Your task to perform on an android device: snooze an email in the gmail app Image 0: 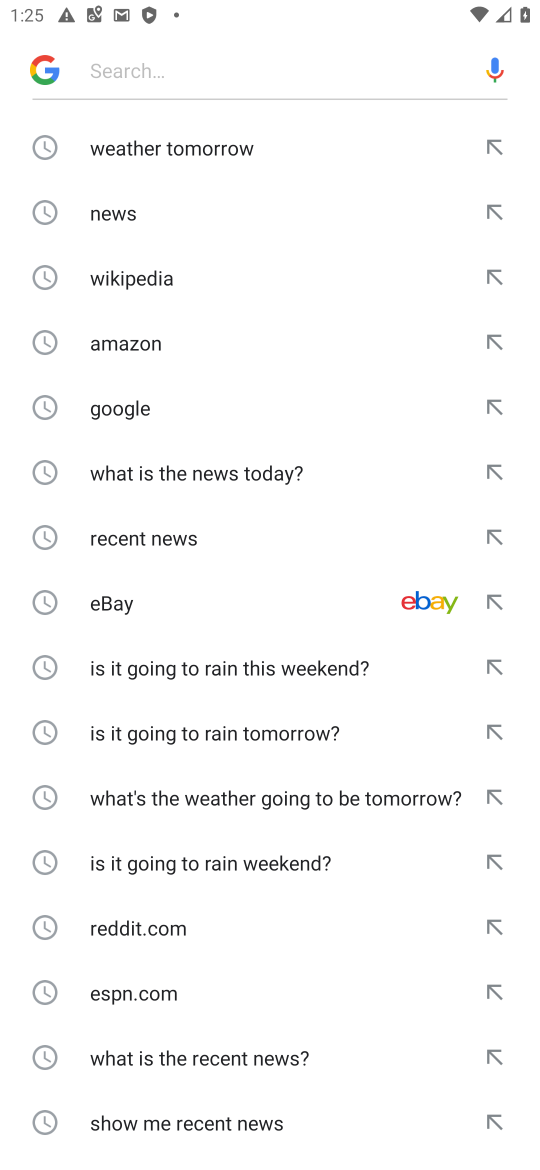
Step 0: drag from (395, 1030) to (365, 789)
Your task to perform on an android device: snooze an email in the gmail app Image 1: 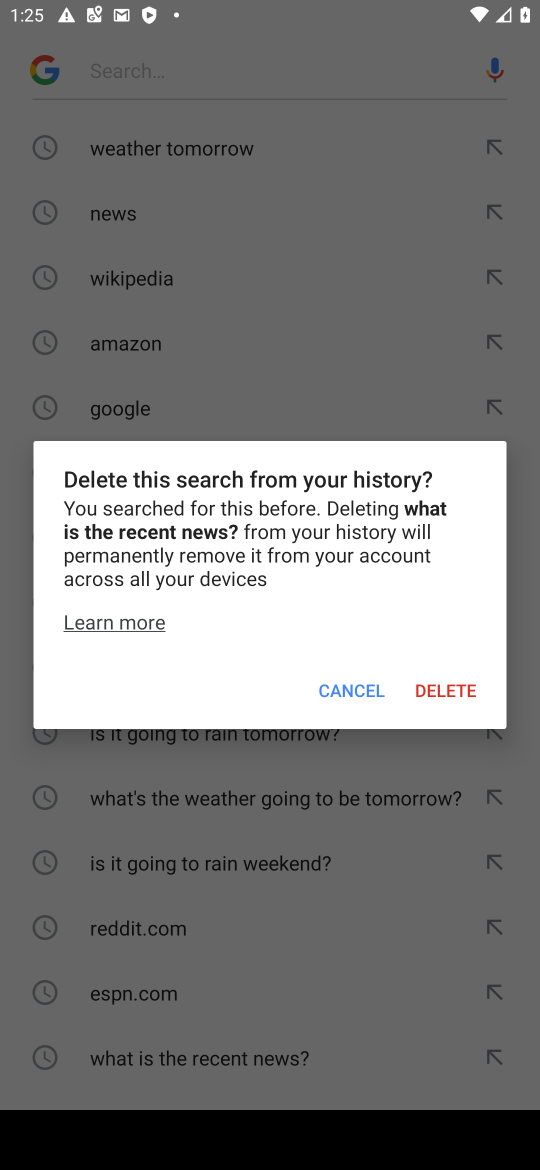
Step 1: click (365, 691)
Your task to perform on an android device: snooze an email in the gmail app Image 2: 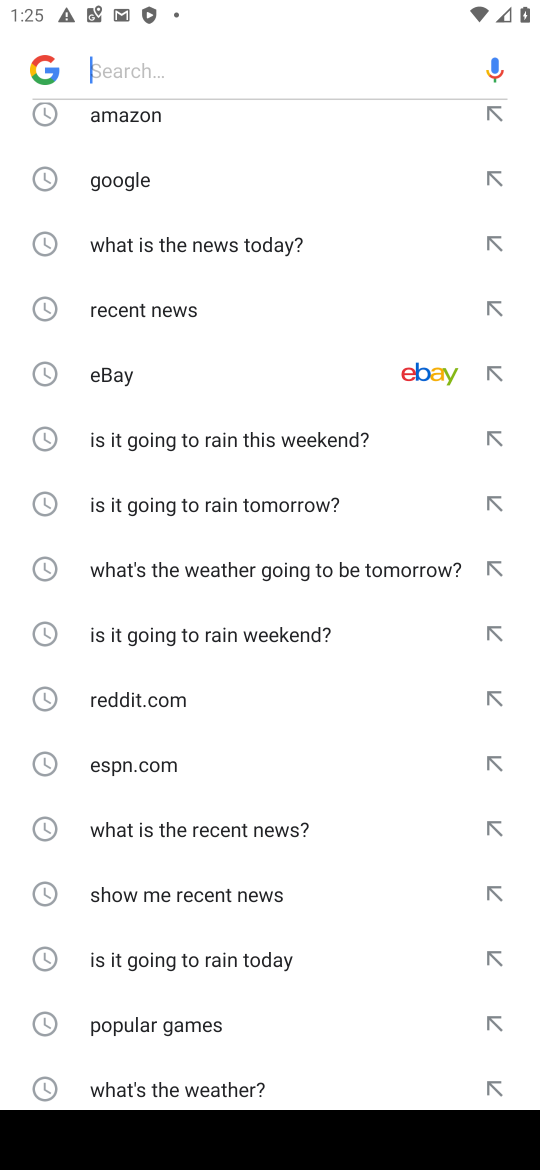
Step 2: press home button
Your task to perform on an android device: snooze an email in the gmail app Image 3: 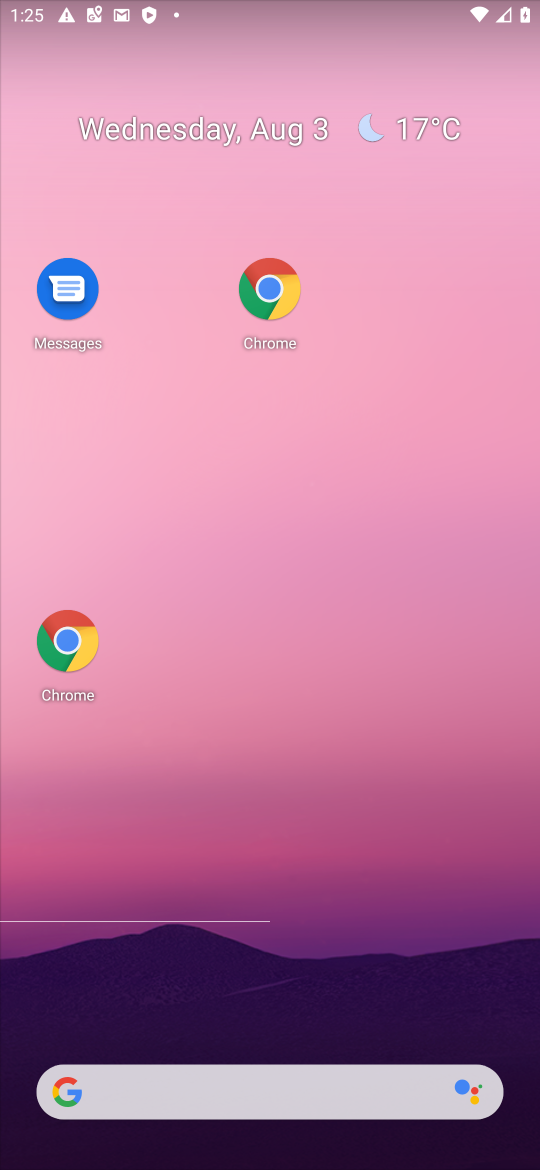
Step 3: drag from (325, 988) to (299, 437)
Your task to perform on an android device: snooze an email in the gmail app Image 4: 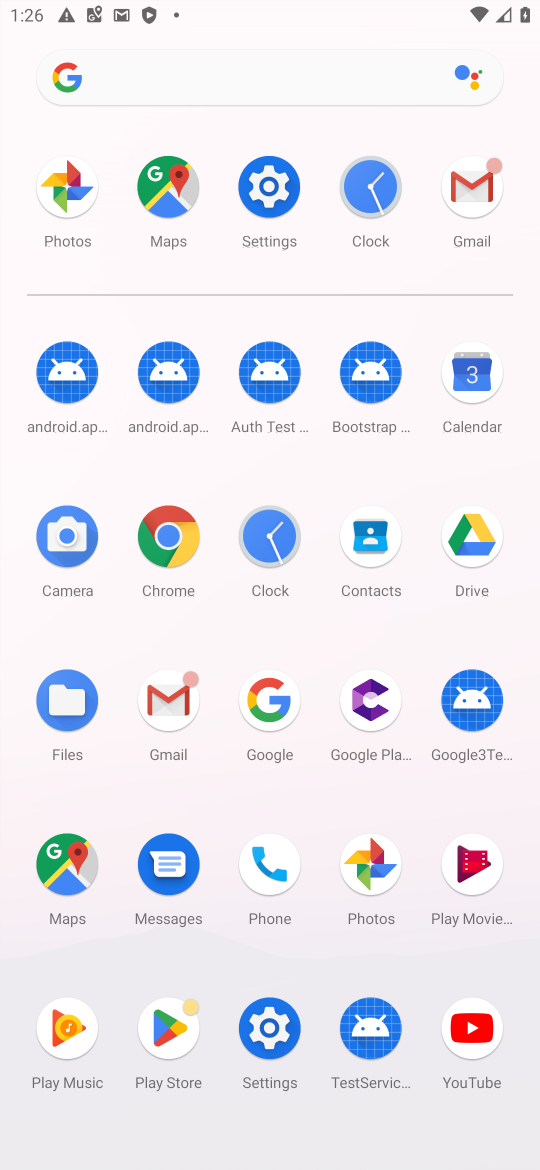
Step 4: click (474, 209)
Your task to perform on an android device: snooze an email in the gmail app Image 5: 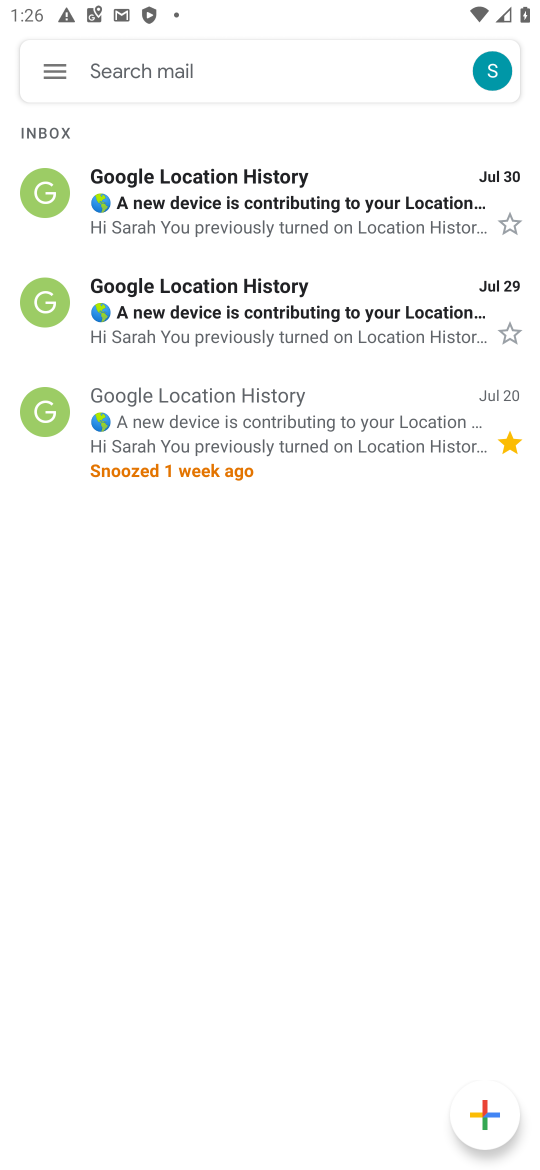
Step 5: click (264, 68)
Your task to perform on an android device: snooze an email in the gmail app Image 6: 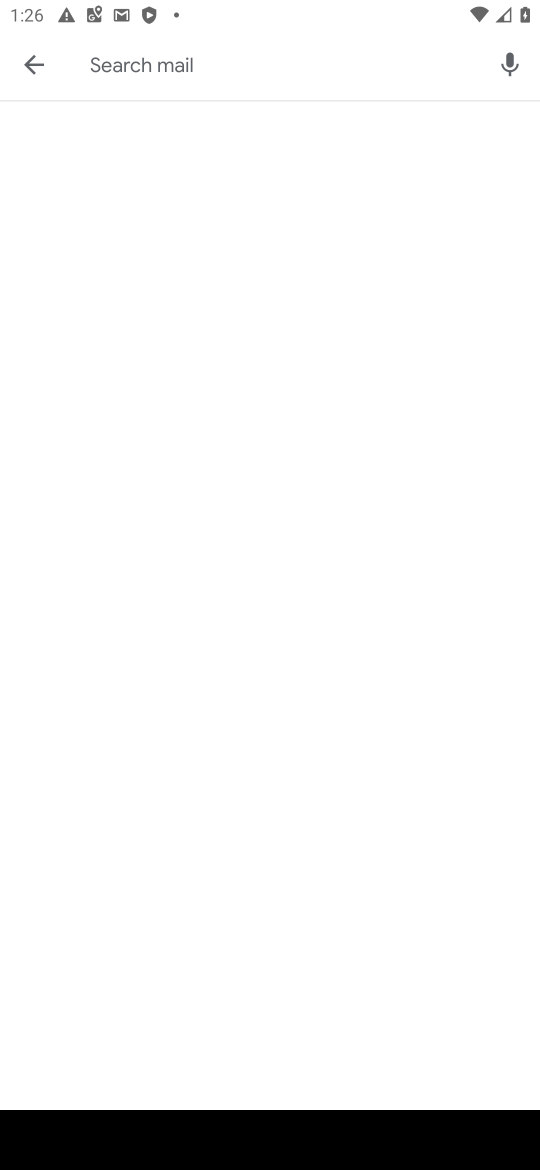
Step 6: task complete